Your task to perform on an android device: Go to battery settings Image 0: 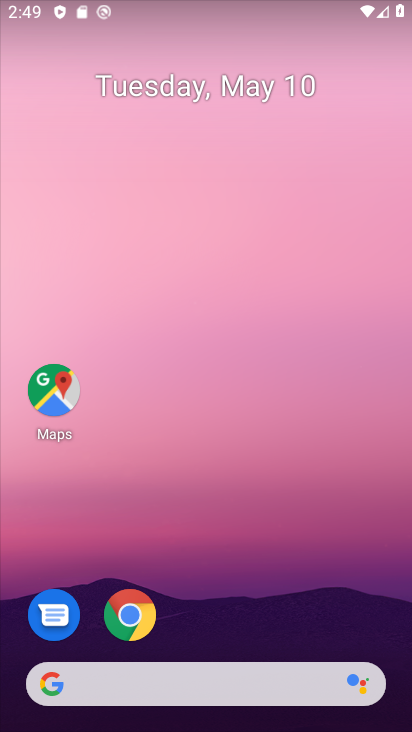
Step 0: click (283, 206)
Your task to perform on an android device: Go to battery settings Image 1: 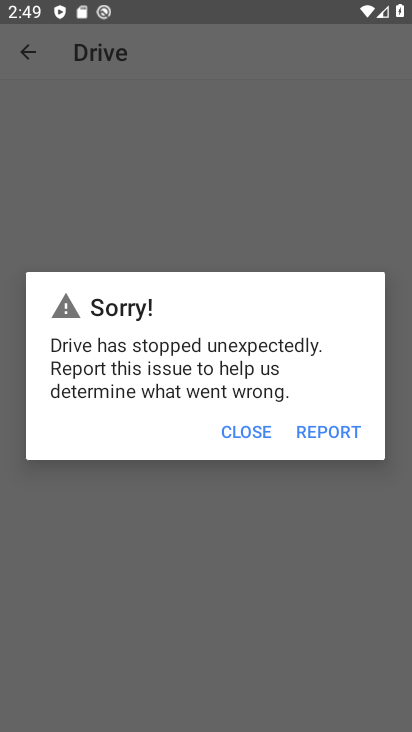
Step 1: press home button
Your task to perform on an android device: Go to battery settings Image 2: 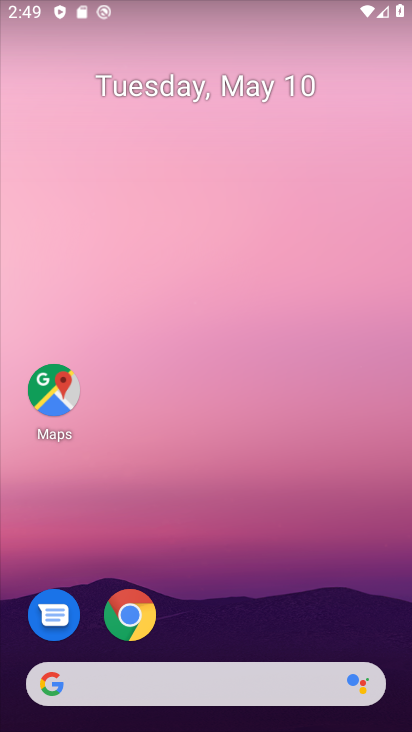
Step 2: drag from (320, 584) to (326, 183)
Your task to perform on an android device: Go to battery settings Image 3: 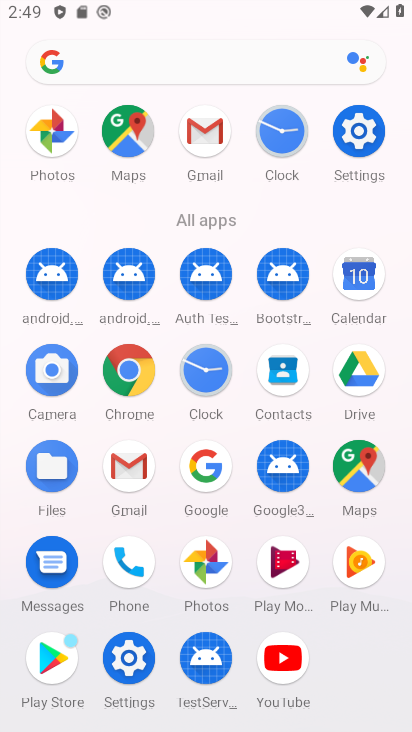
Step 3: click (344, 139)
Your task to perform on an android device: Go to battery settings Image 4: 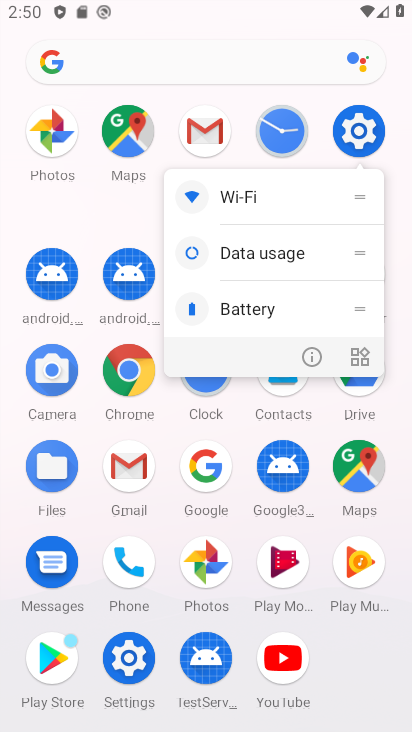
Step 4: click (365, 134)
Your task to perform on an android device: Go to battery settings Image 5: 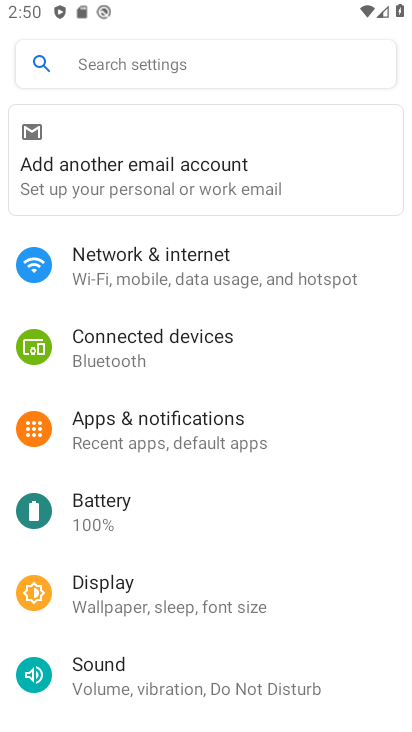
Step 5: click (116, 515)
Your task to perform on an android device: Go to battery settings Image 6: 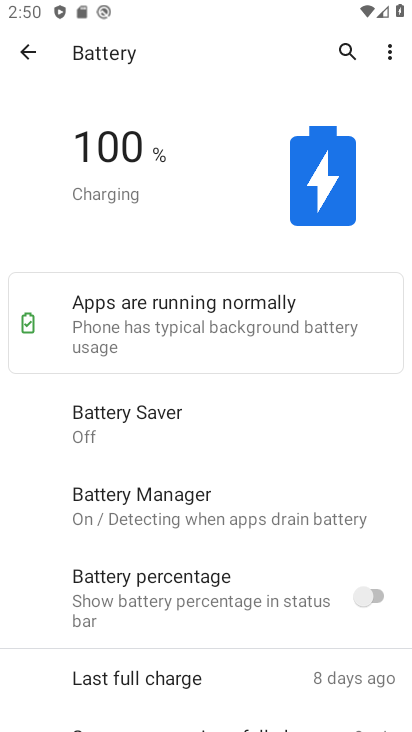
Step 6: task complete